Your task to perform on an android device: Toggle the flashlight Image 0: 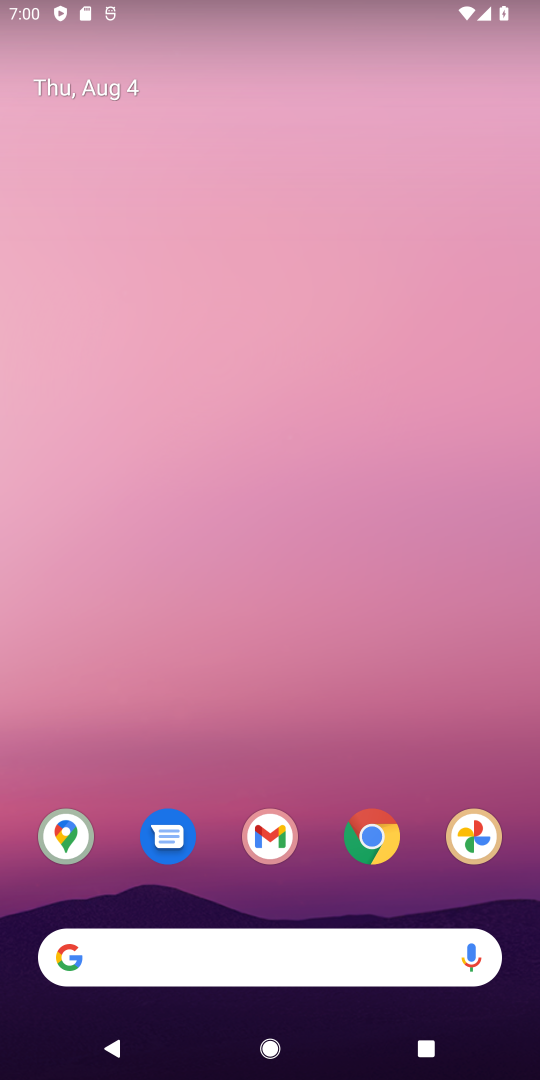
Step 0: drag from (310, 642) to (424, 8)
Your task to perform on an android device: Toggle the flashlight Image 1: 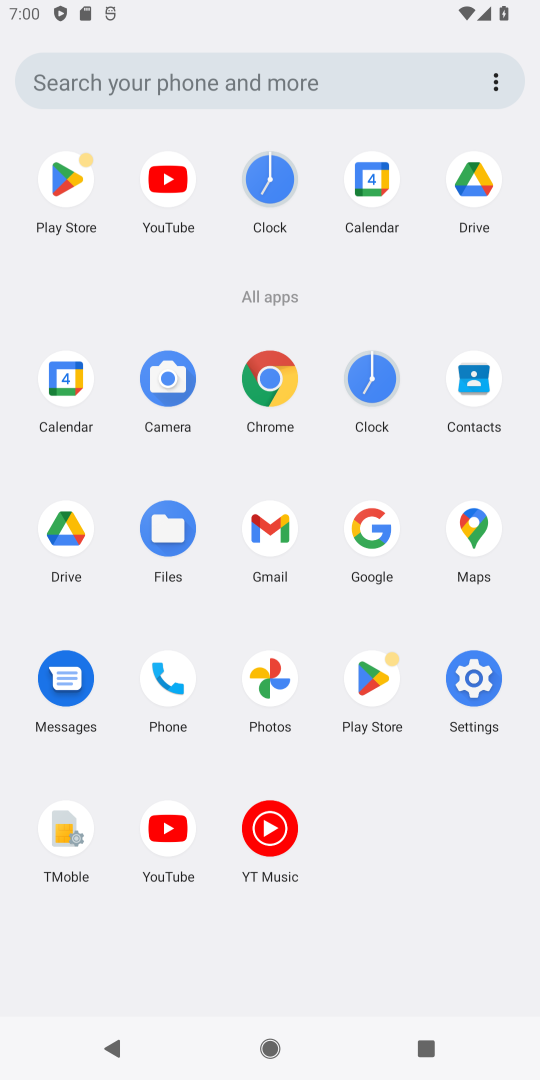
Step 1: click (481, 676)
Your task to perform on an android device: Toggle the flashlight Image 2: 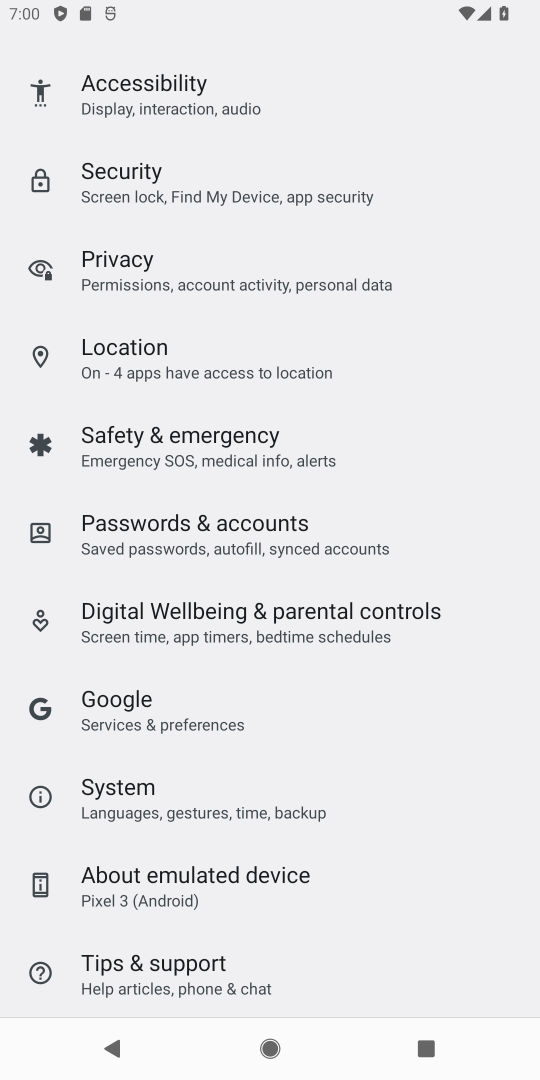
Step 2: drag from (323, 143) to (265, 847)
Your task to perform on an android device: Toggle the flashlight Image 3: 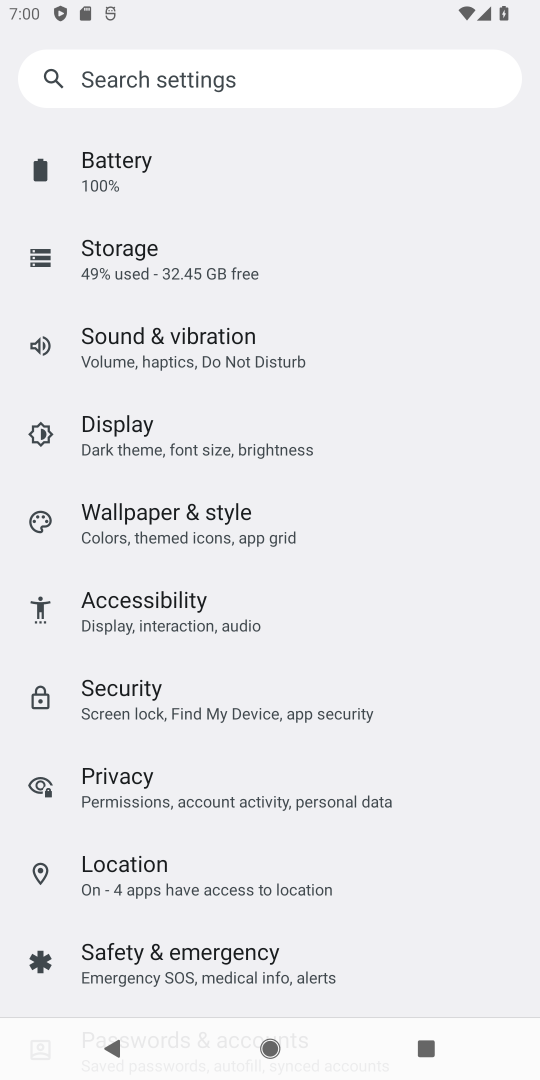
Step 3: click (213, 66)
Your task to perform on an android device: Toggle the flashlight Image 4: 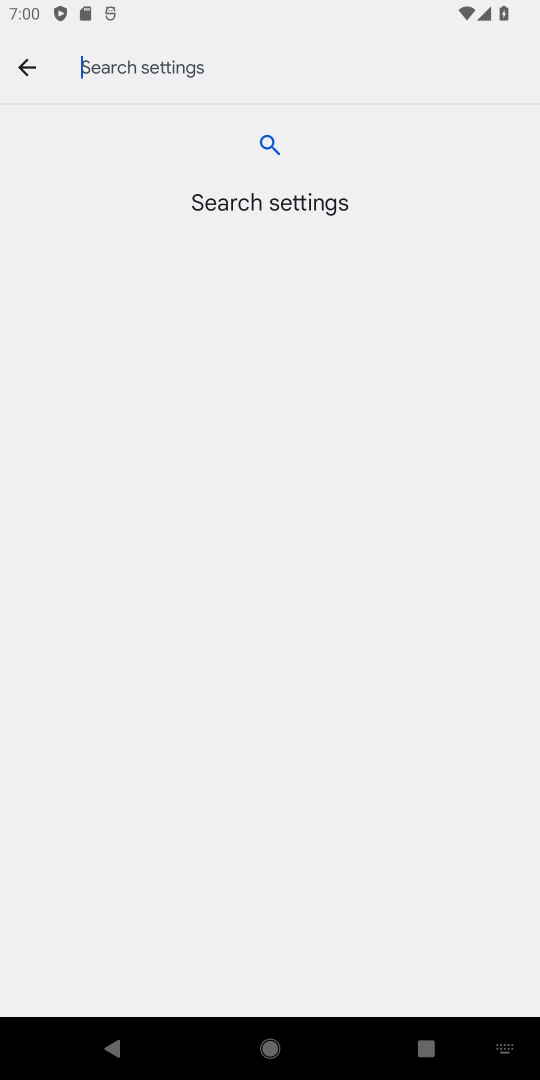
Step 4: type "flashlight"
Your task to perform on an android device: Toggle the flashlight Image 5: 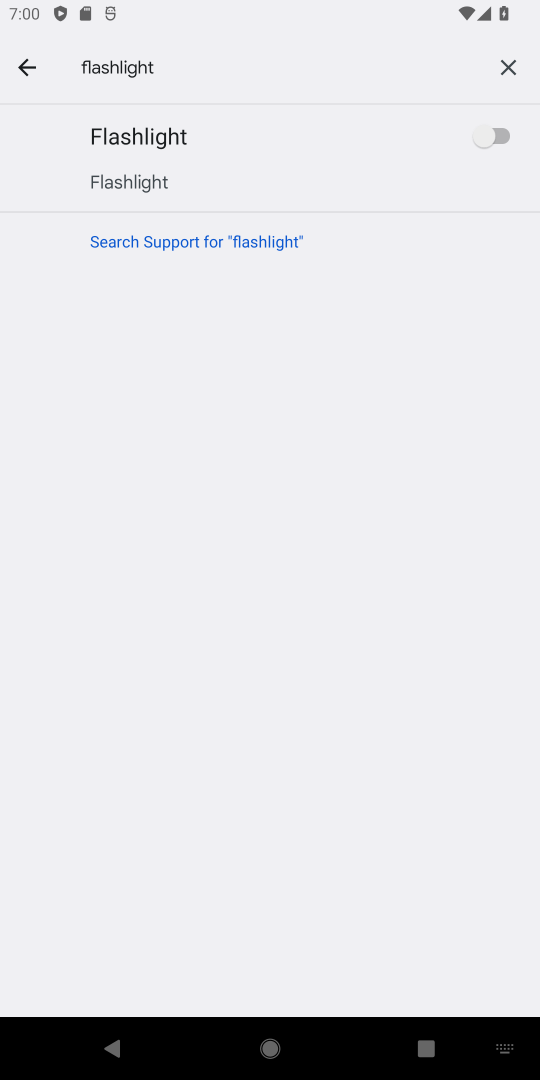
Step 5: click (499, 137)
Your task to perform on an android device: Toggle the flashlight Image 6: 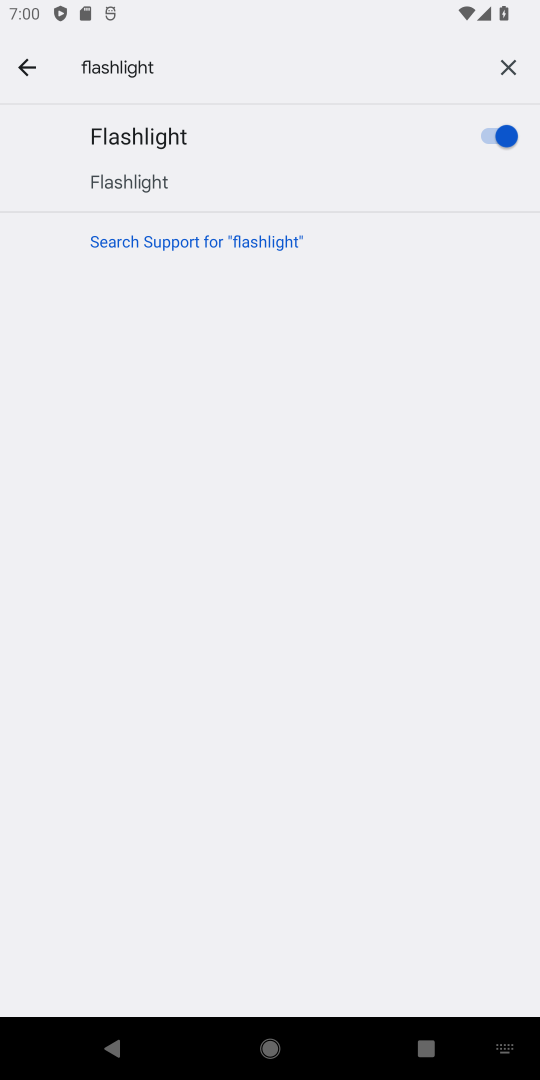
Step 6: task complete